Your task to perform on an android device: What's the weather going to be this weekend? Image 0: 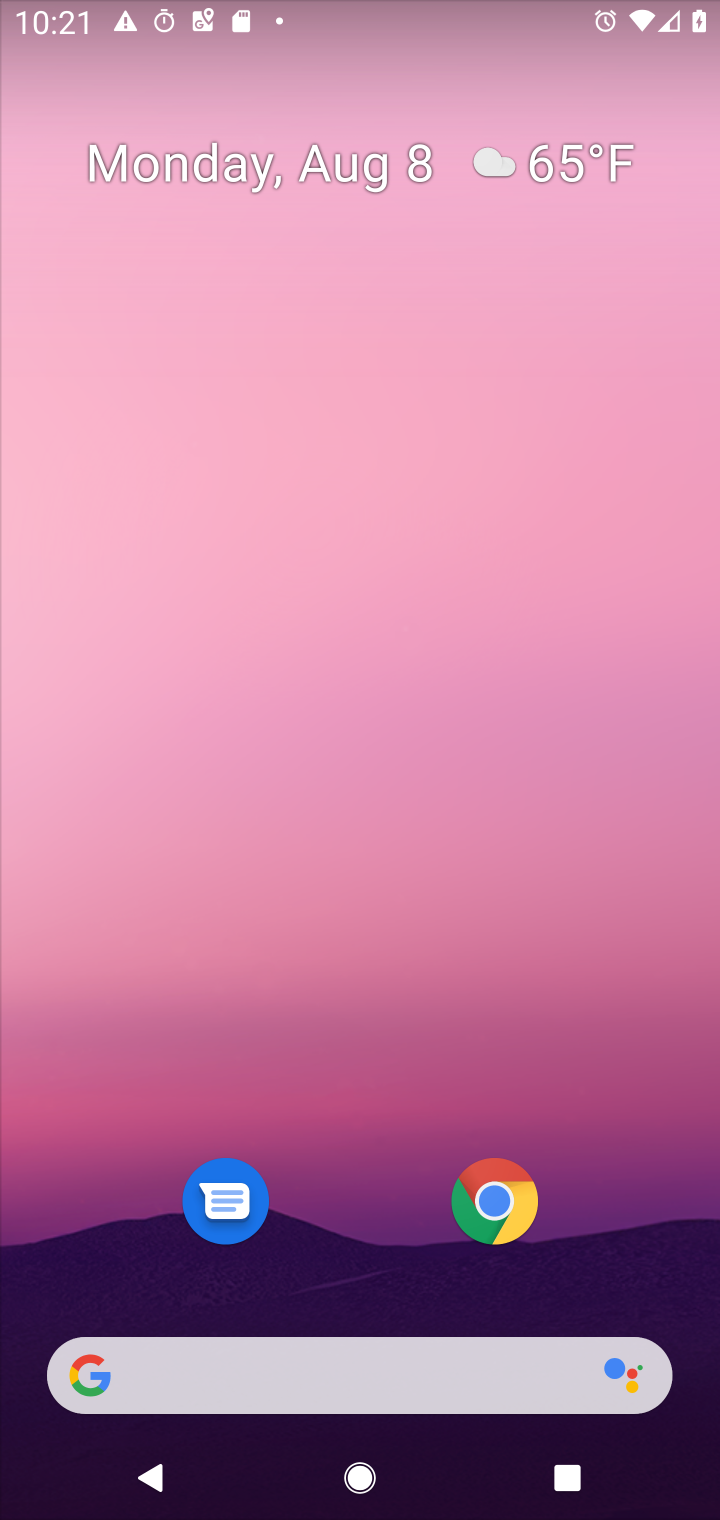
Step 0: click (304, 1371)
Your task to perform on an android device: What's the weather going to be this weekend? Image 1: 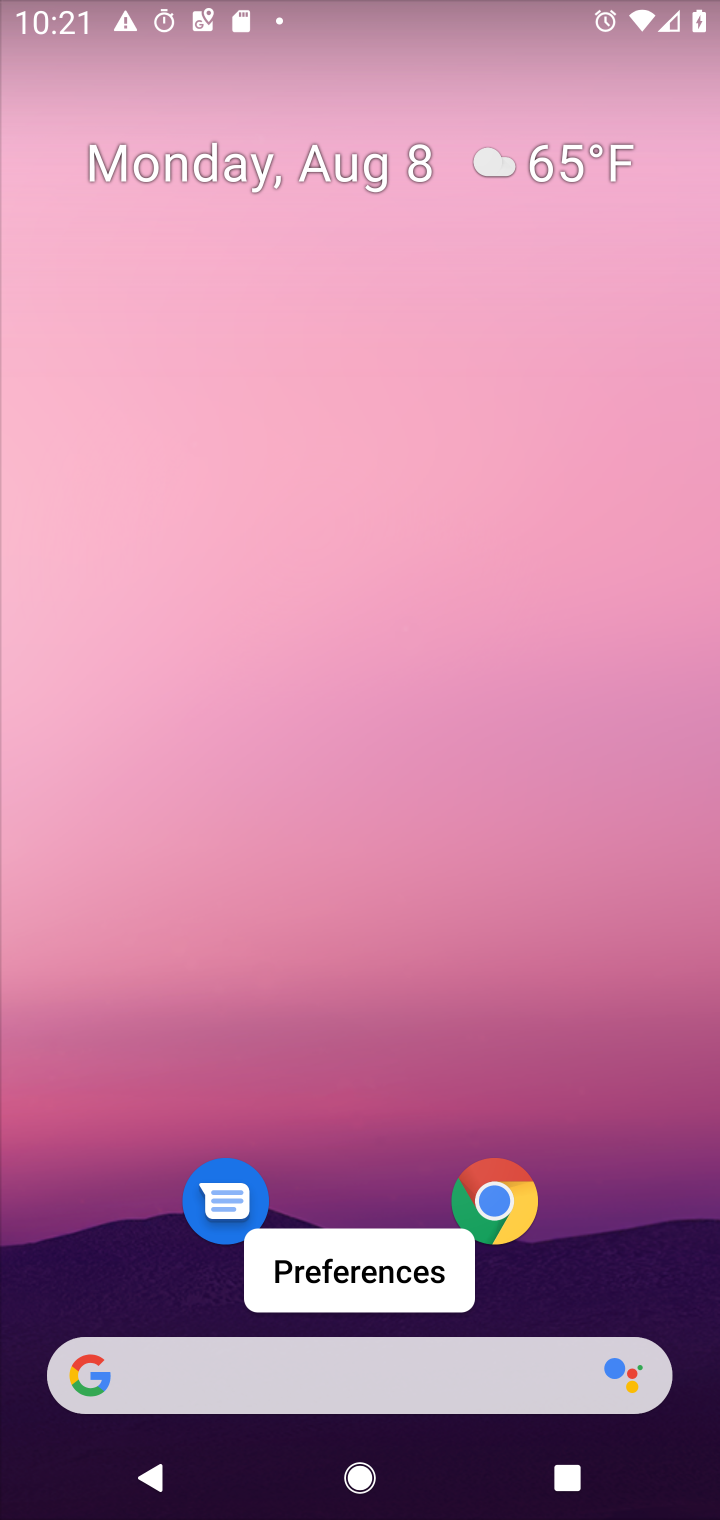
Step 1: click (304, 1371)
Your task to perform on an android device: What's the weather going to be this weekend? Image 2: 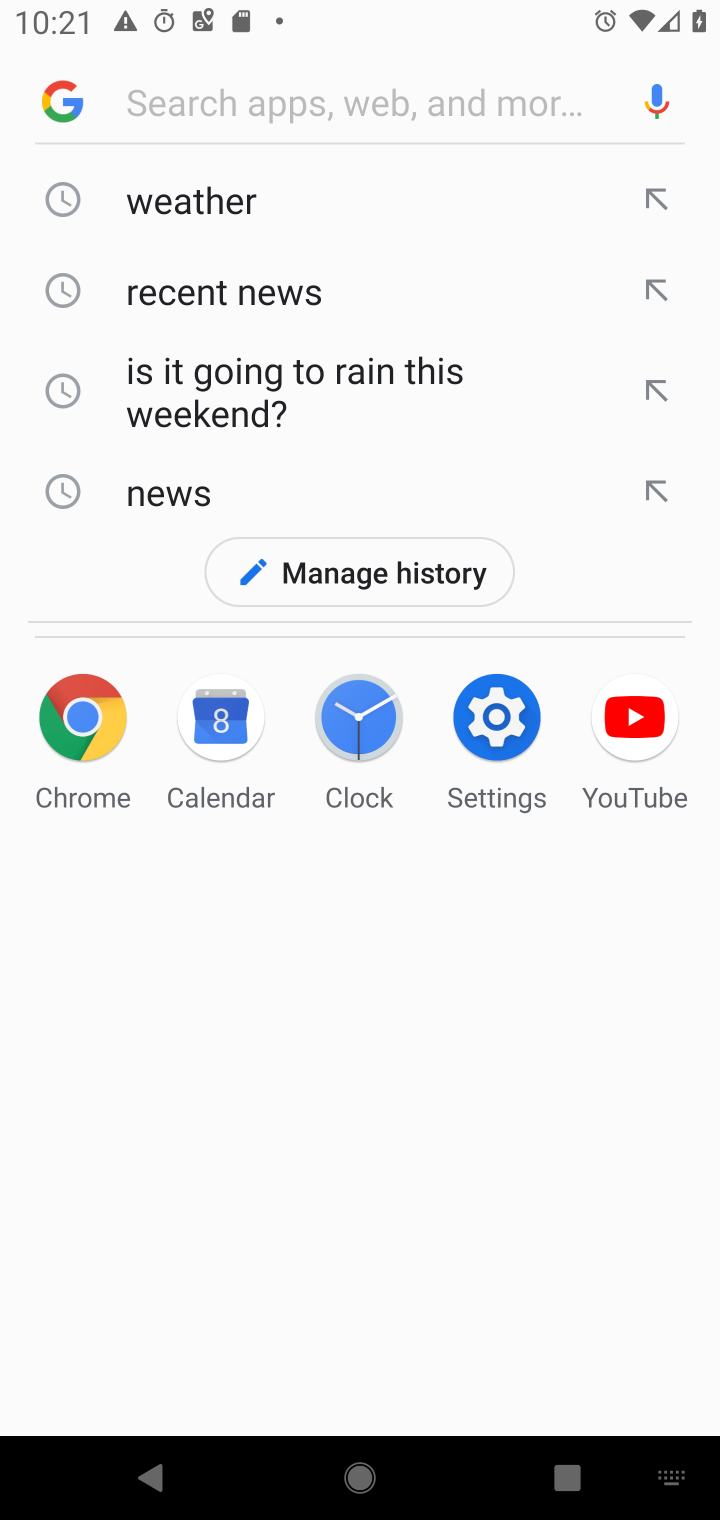
Step 2: click (244, 193)
Your task to perform on an android device: What's the weather going to be this weekend? Image 3: 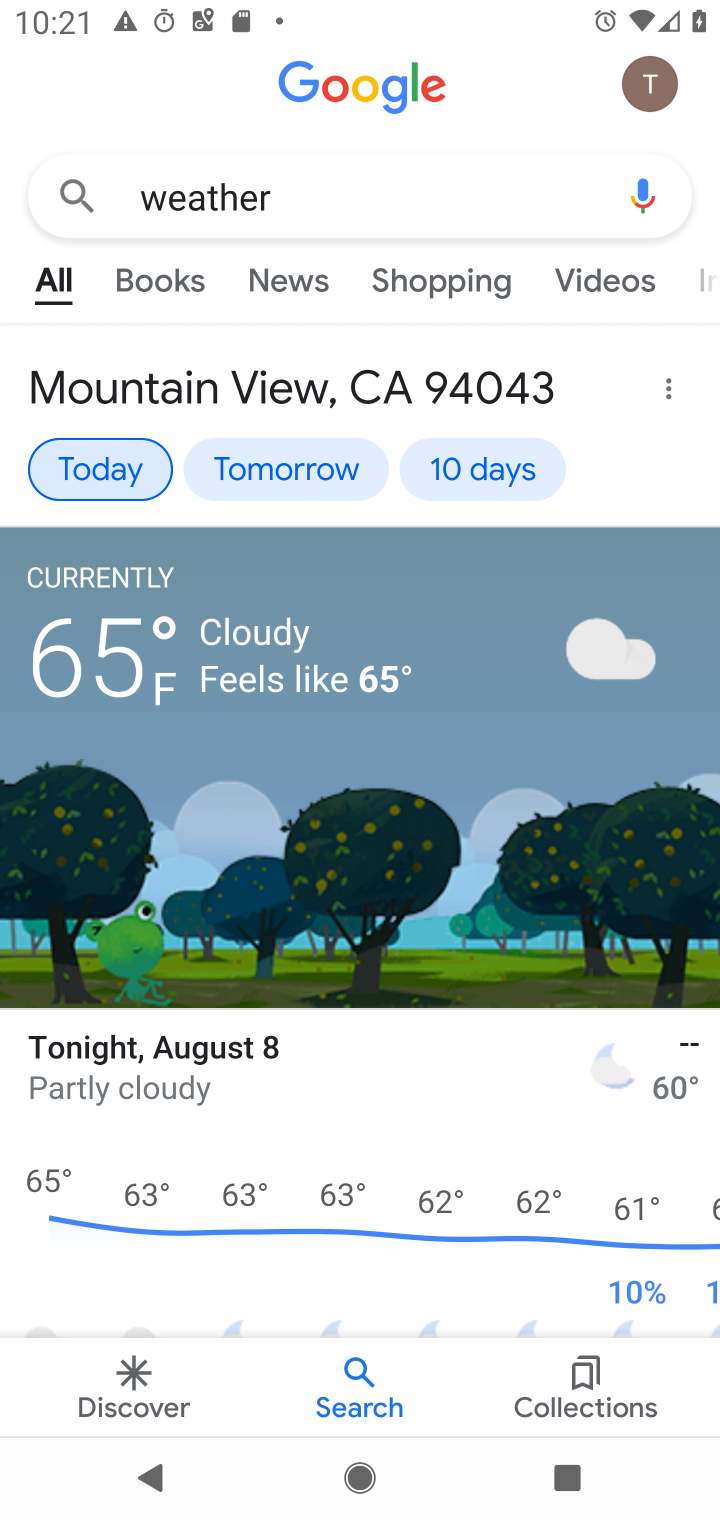
Step 3: click (484, 476)
Your task to perform on an android device: What's the weather going to be this weekend? Image 4: 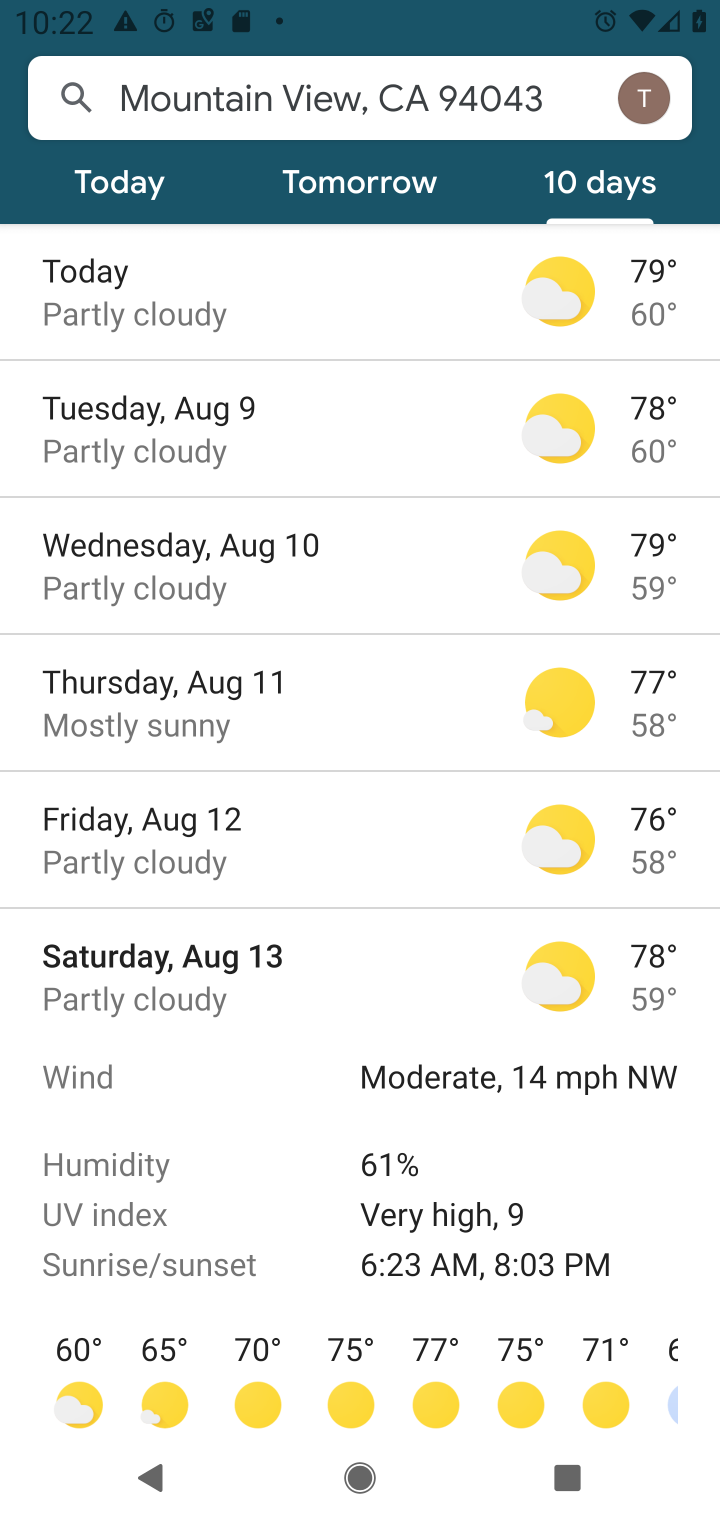
Step 4: task complete